Your task to perform on an android device: Go to Reddit.com Image 0: 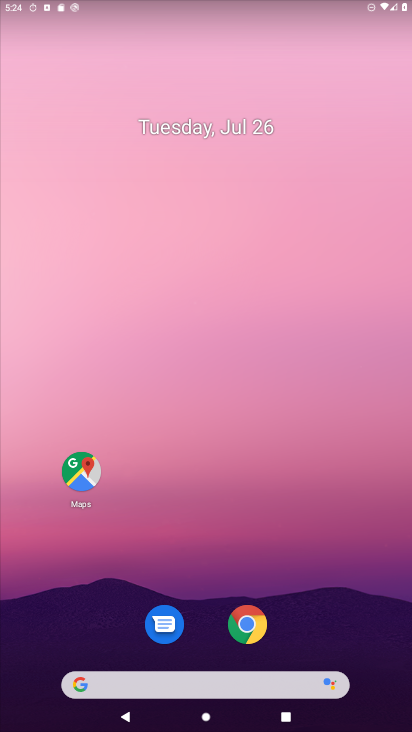
Step 0: drag from (298, 682) to (187, 16)
Your task to perform on an android device: Go to Reddit.com Image 1: 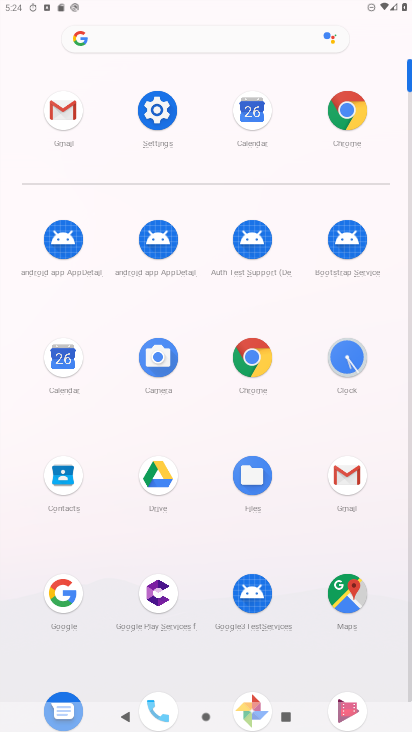
Step 1: click (252, 340)
Your task to perform on an android device: Go to Reddit.com Image 2: 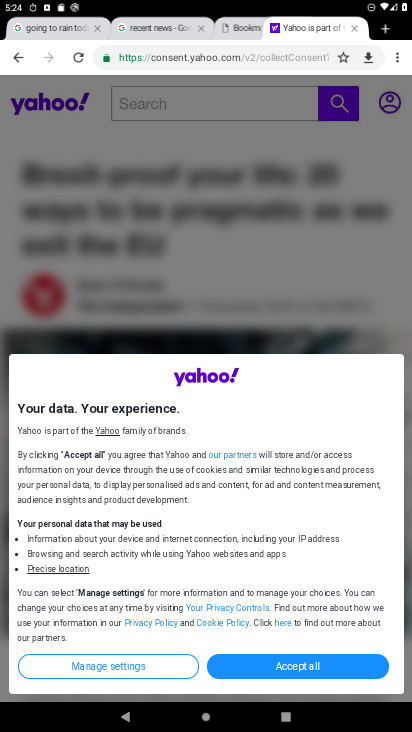
Step 2: click (169, 55)
Your task to perform on an android device: Go to Reddit.com Image 3: 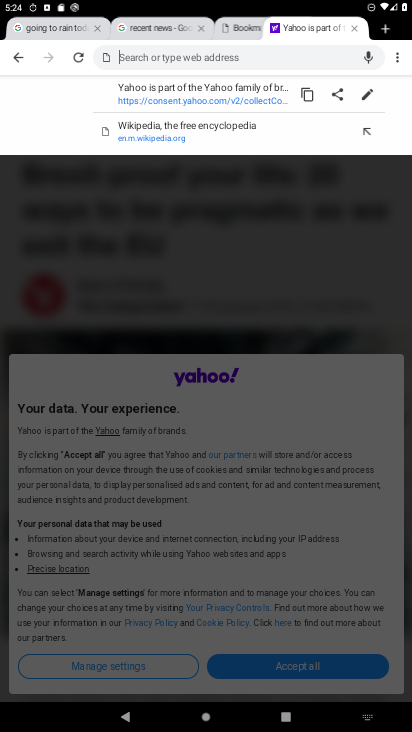
Step 3: type "reddit.com"
Your task to perform on an android device: Go to Reddit.com Image 4: 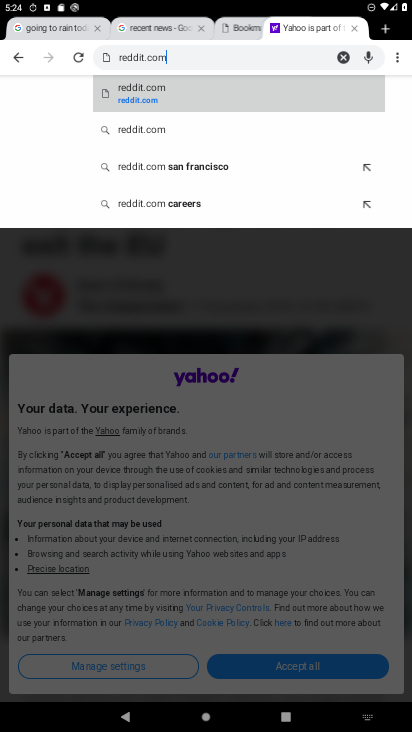
Step 4: click (254, 97)
Your task to perform on an android device: Go to Reddit.com Image 5: 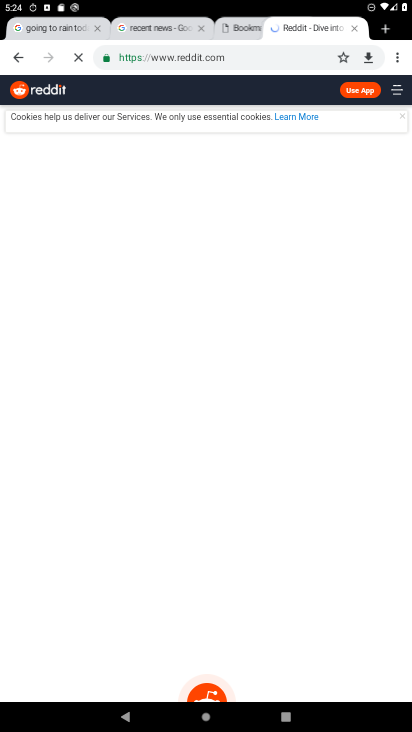
Step 5: task complete